Your task to perform on an android device: delete the emails in spam in the gmail app Image 0: 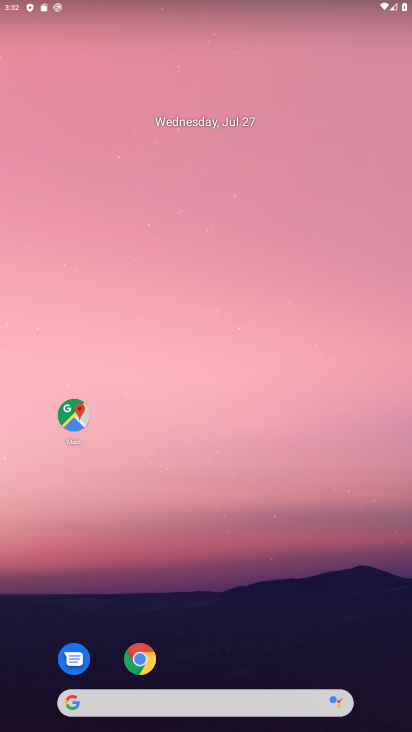
Step 0: click (242, 33)
Your task to perform on an android device: delete the emails in spam in the gmail app Image 1: 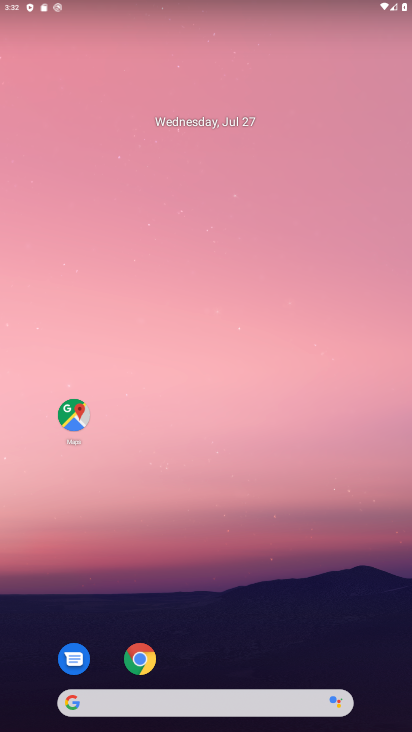
Step 1: drag from (201, 367) to (162, 64)
Your task to perform on an android device: delete the emails in spam in the gmail app Image 2: 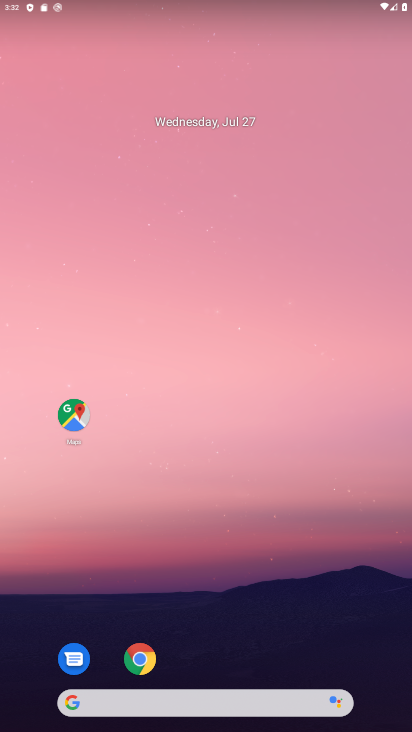
Step 2: drag from (278, 658) to (213, 79)
Your task to perform on an android device: delete the emails in spam in the gmail app Image 3: 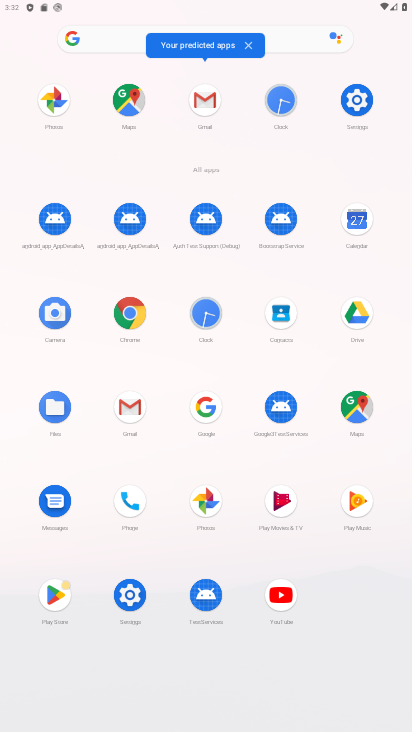
Step 3: click (200, 96)
Your task to perform on an android device: delete the emails in spam in the gmail app Image 4: 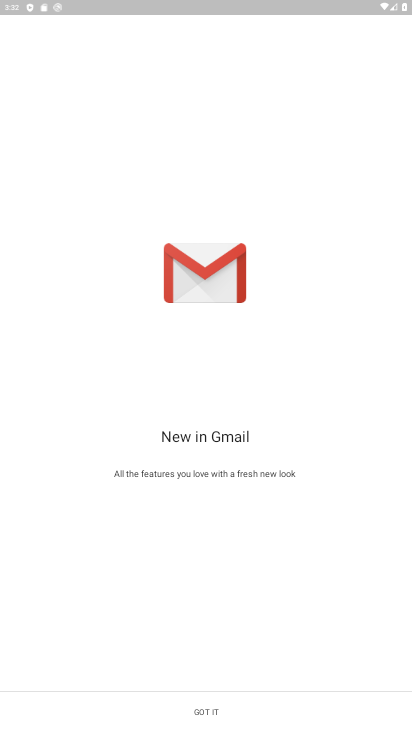
Step 4: click (153, 711)
Your task to perform on an android device: delete the emails in spam in the gmail app Image 5: 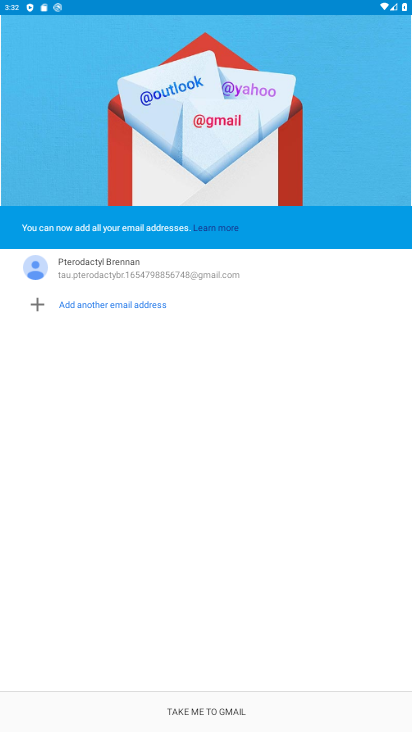
Step 5: click (184, 707)
Your task to perform on an android device: delete the emails in spam in the gmail app Image 6: 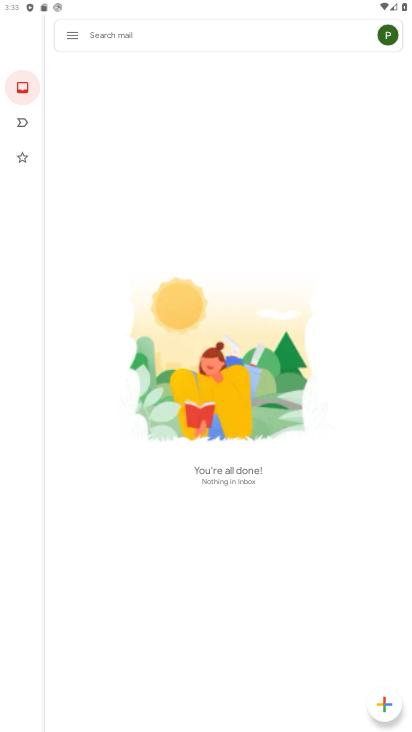
Step 6: click (73, 33)
Your task to perform on an android device: delete the emails in spam in the gmail app Image 7: 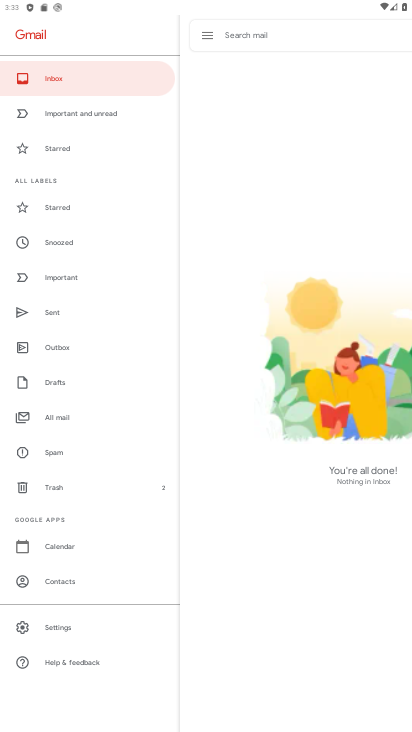
Step 7: click (76, 454)
Your task to perform on an android device: delete the emails in spam in the gmail app Image 8: 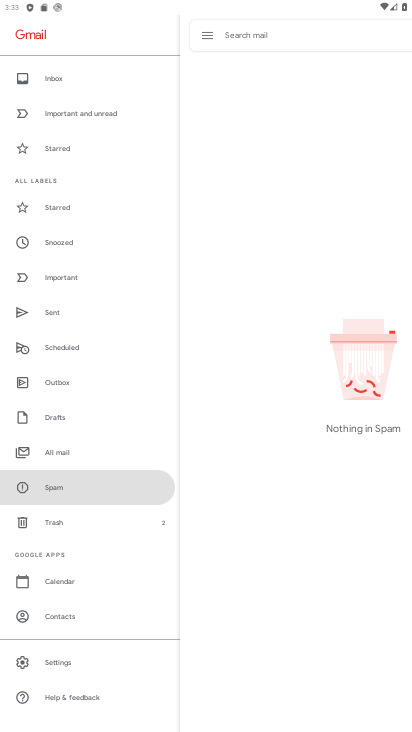
Step 8: task complete